Your task to perform on an android device: Open Maps and search for coffee Image 0: 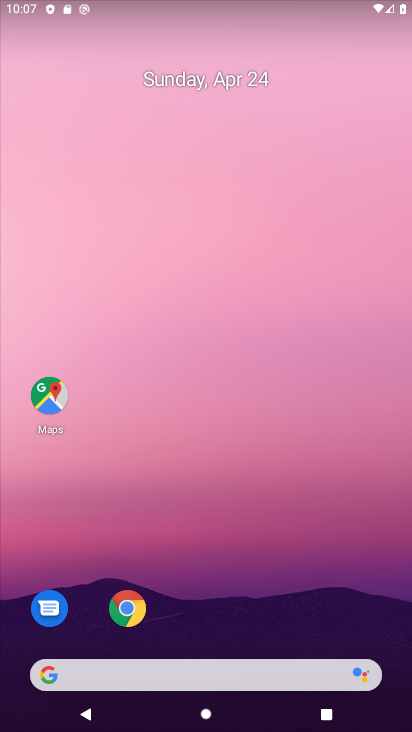
Step 0: drag from (276, 598) to (258, 184)
Your task to perform on an android device: Open Maps and search for coffee Image 1: 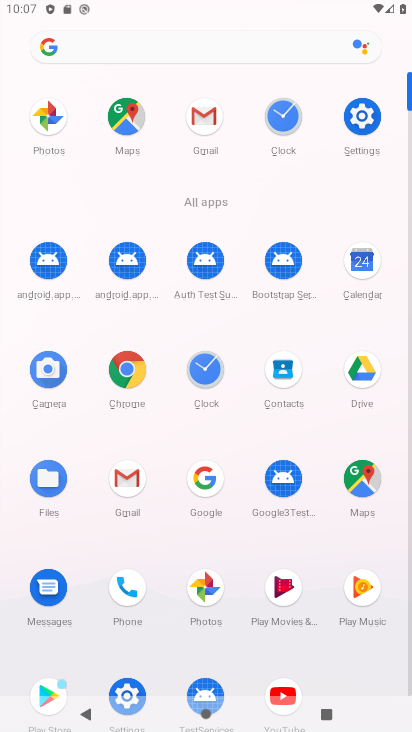
Step 1: click (361, 486)
Your task to perform on an android device: Open Maps and search for coffee Image 2: 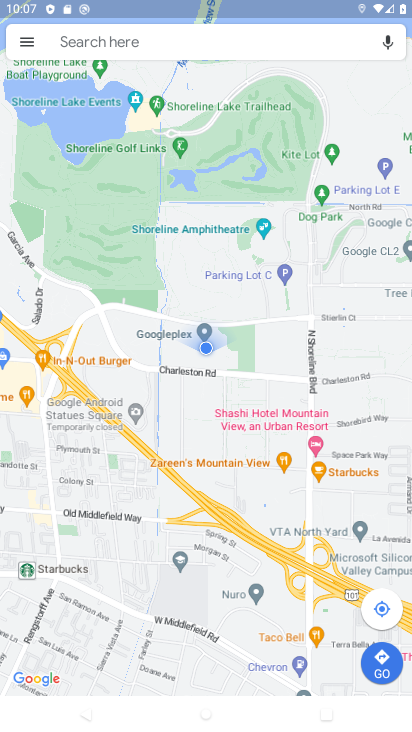
Step 2: click (233, 29)
Your task to perform on an android device: Open Maps and search for coffee Image 3: 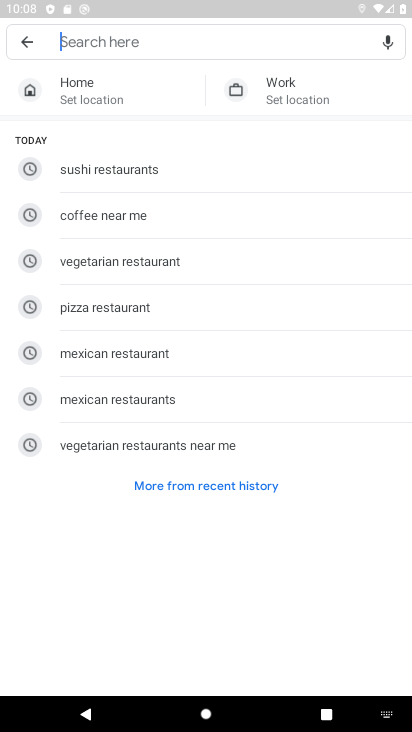
Step 3: type "coffee"
Your task to perform on an android device: Open Maps and search for coffee Image 4: 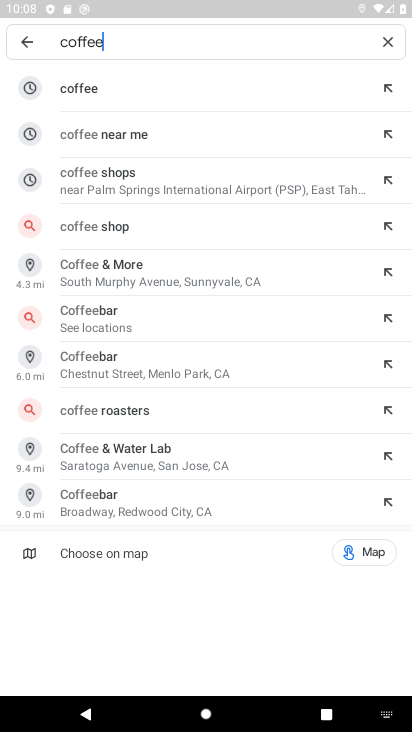
Step 4: click (88, 78)
Your task to perform on an android device: Open Maps and search for coffee Image 5: 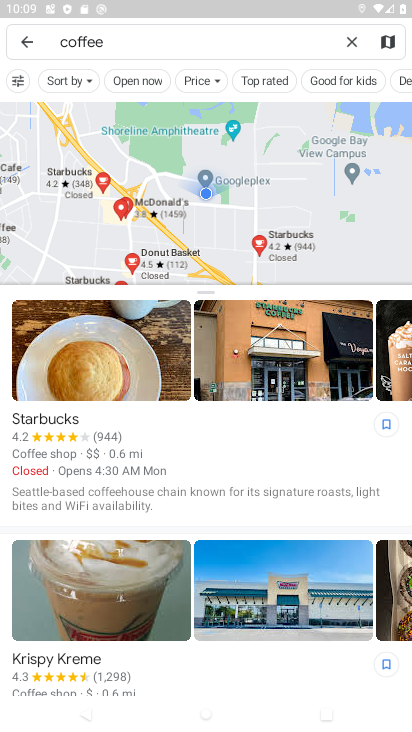
Step 5: task complete